Your task to perform on an android device: change alarm snooze length Image 0: 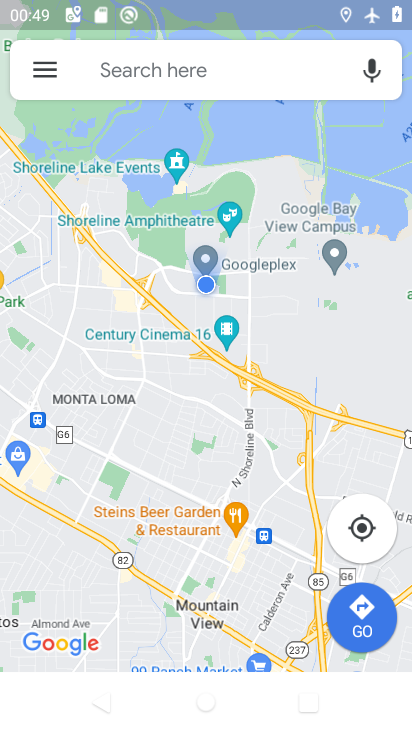
Step 0: press home button
Your task to perform on an android device: change alarm snooze length Image 1: 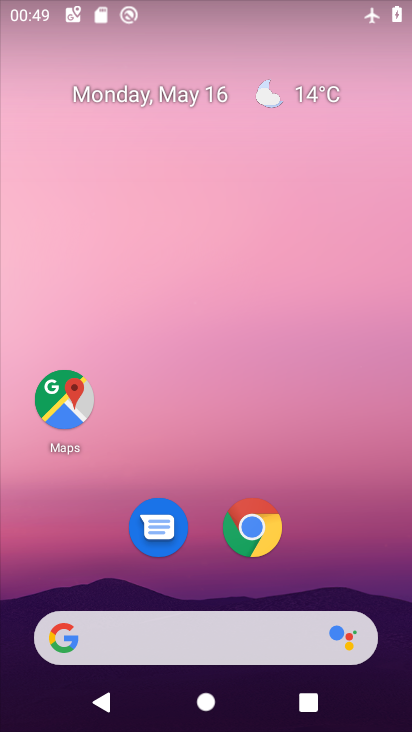
Step 1: drag from (205, 577) to (232, 193)
Your task to perform on an android device: change alarm snooze length Image 2: 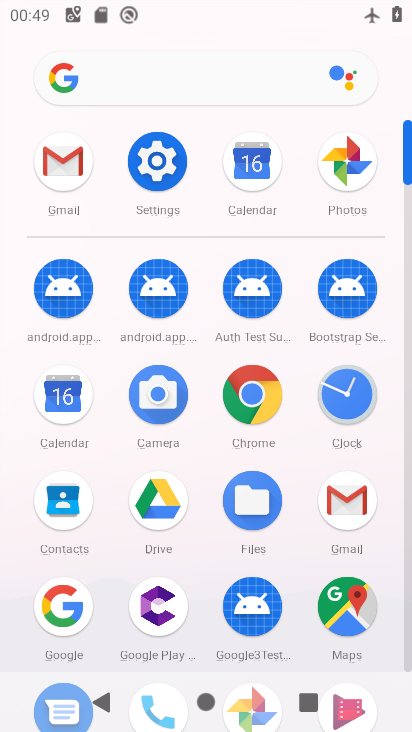
Step 2: click (357, 381)
Your task to perform on an android device: change alarm snooze length Image 3: 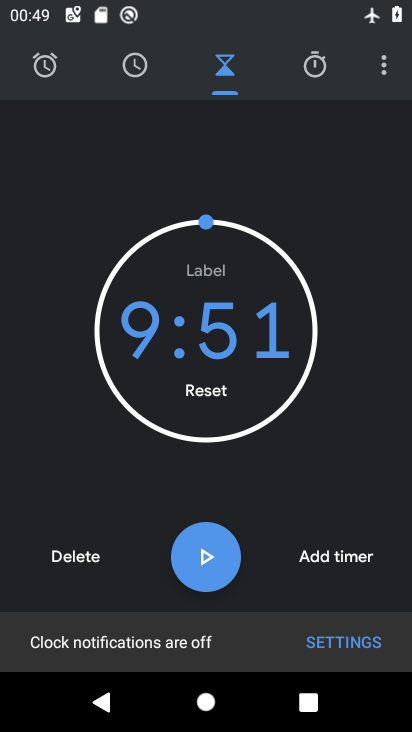
Step 3: click (386, 71)
Your task to perform on an android device: change alarm snooze length Image 4: 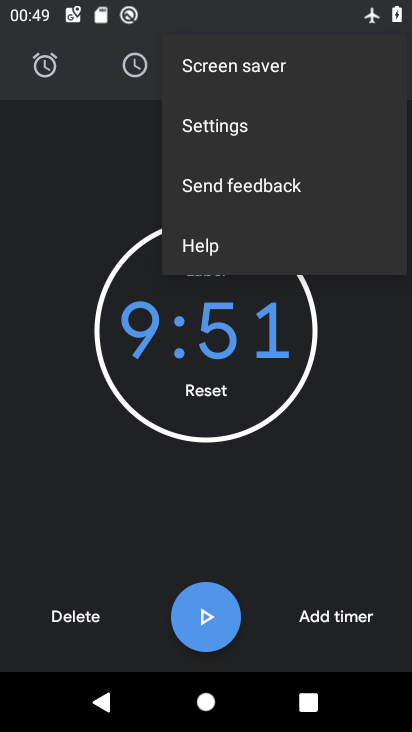
Step 4: click (211, 128)
Your task to perform on an android device: change alarm snooze length Image 5: 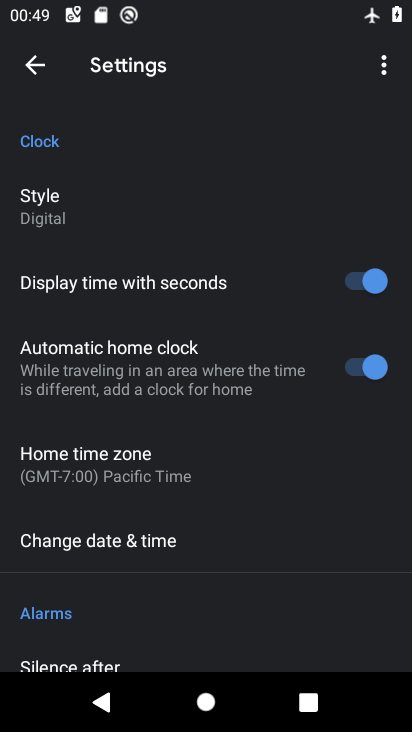
Step 5: drag from (197, 500) to (264, 233)
Your task to perform on an android device: change alarm snooze length Image 6: 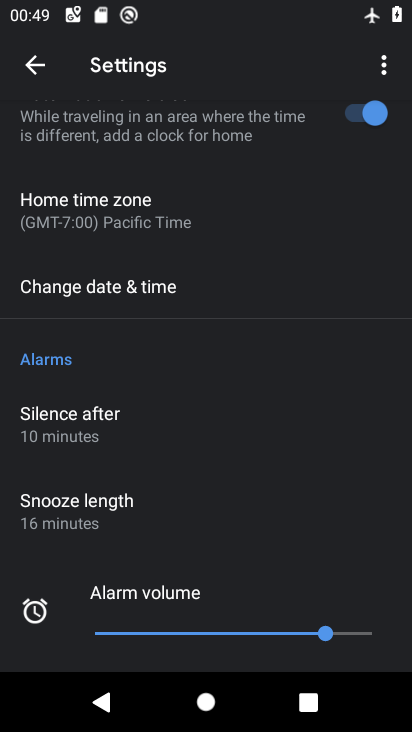
Step 6: drag from (191, 524) to (208, 347)
Your task to perform on an android device: change alarm snooze length Image 7: 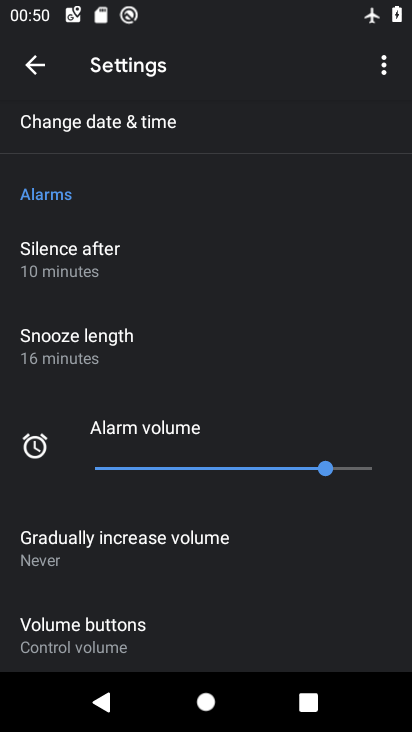
Step 7: click (114, 352)
Your task to perform on an android device: change alarm snooze length Image 8: 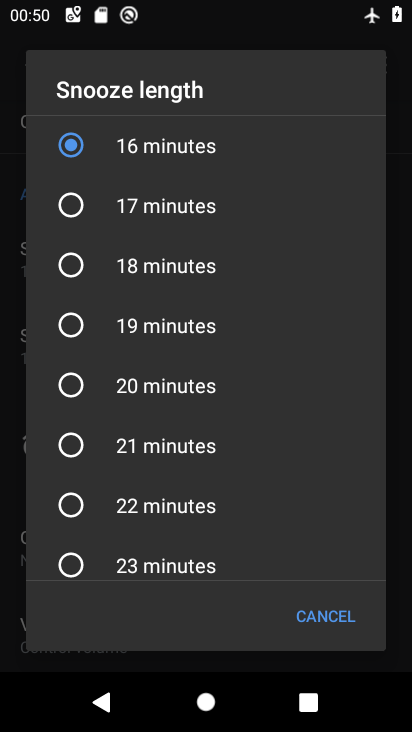
Step 8: click (127, 397)
Your task to perform on an android device: change alarm snooze length Image 9: 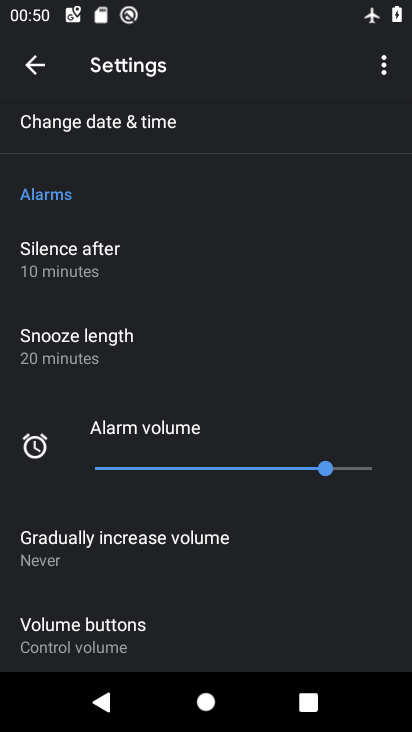
Step 9: task complete